Your task to perform on an android device: Go to Amazon Image 0: 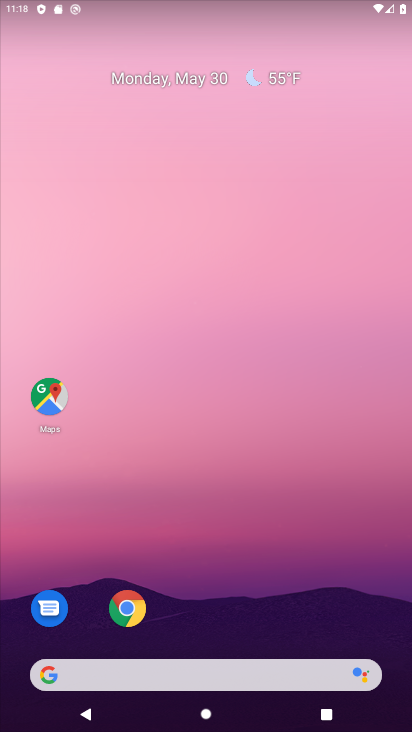
Step 0: click (127, 615)
Your task to perform on an android device: Go to Amazon Image 1: 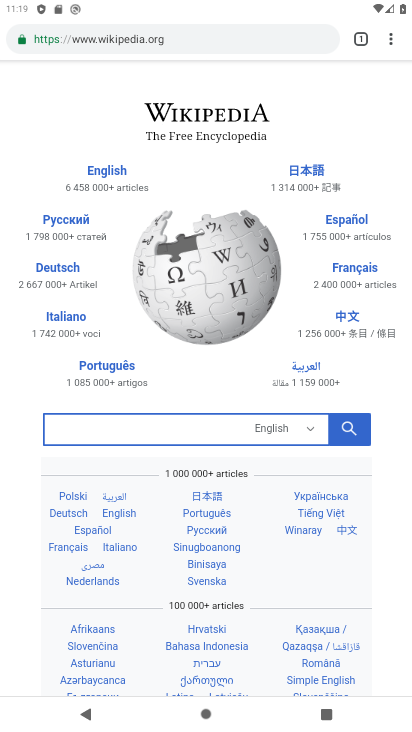
Step 1: click (101, 42)
Your task to perform on an android device: Go to Amazon Image 2: 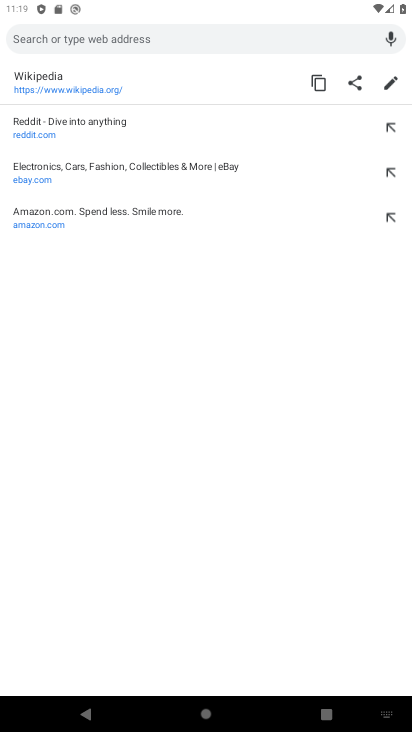
Step 2: click (31, 226)
Your task to perform on an android device: Go to Amazon Image 3: 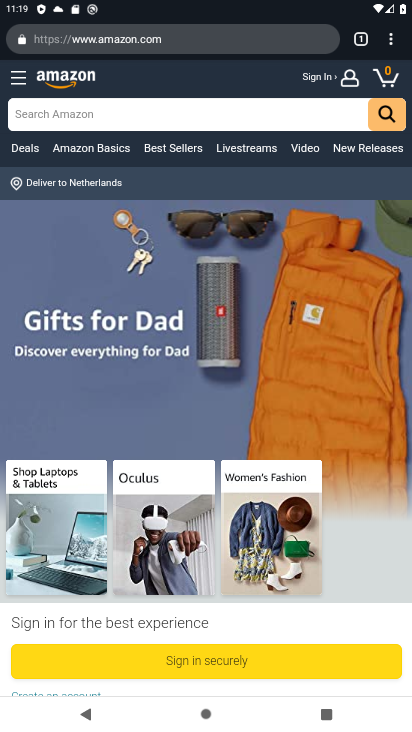
Step 3: task complete